Your task to perform on an android device: turn smart compose on in the gmail app Image 0: 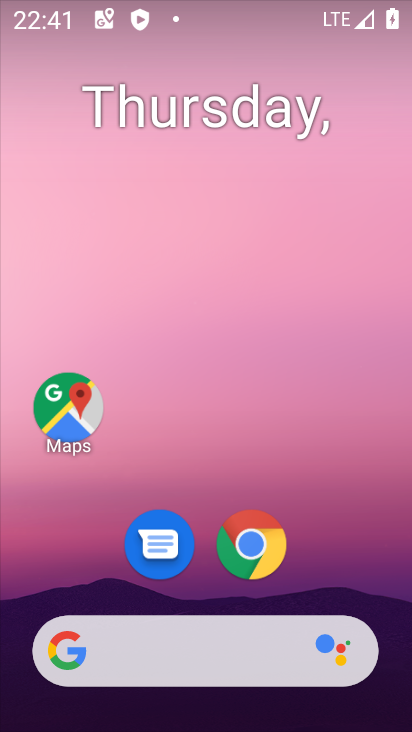
Step 0: drag from (346, 555) to (214, 177)
Your task to perform on an android device: turn smart compose on in the gmail app Image 1: 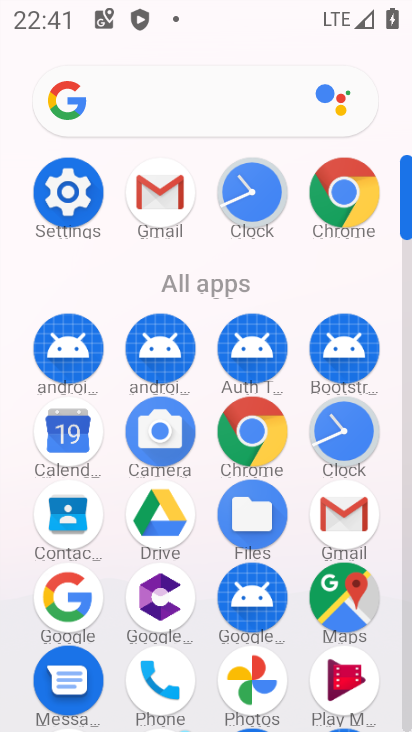
Step 1: click (181, 207)
Your task to perform on an android device: turn smart compose on in the gmail app Image 2: 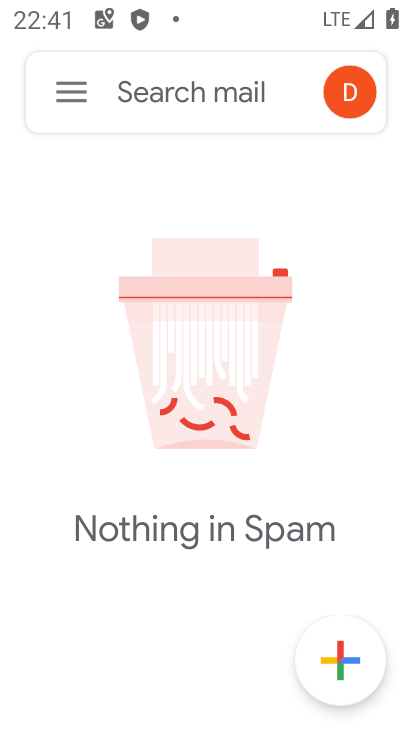
Step 2: click (82, 98)
Your task to perform on an android device: turn smart compose on in the gmail app Image 3: 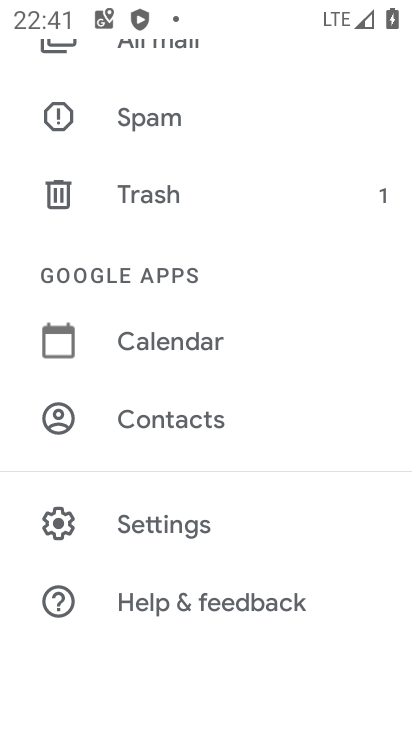
Step 3: click (144, 519)
Your task to perform on an android device: turn smart compose on in the gmail app Image 4: 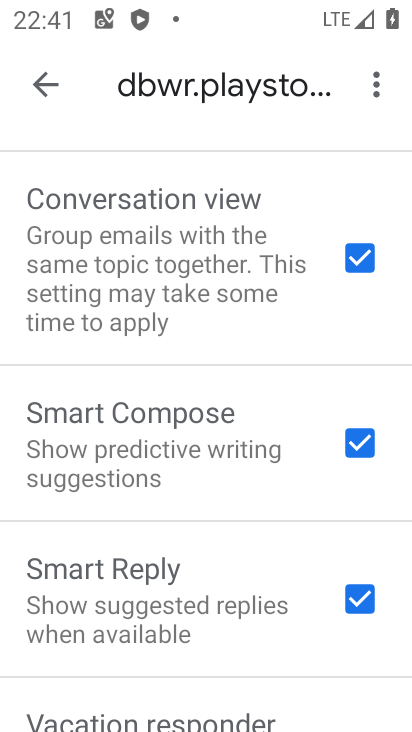
Step 4: task complete